Your task to perform on an android device: set default search engine in the chrome app Image 0: 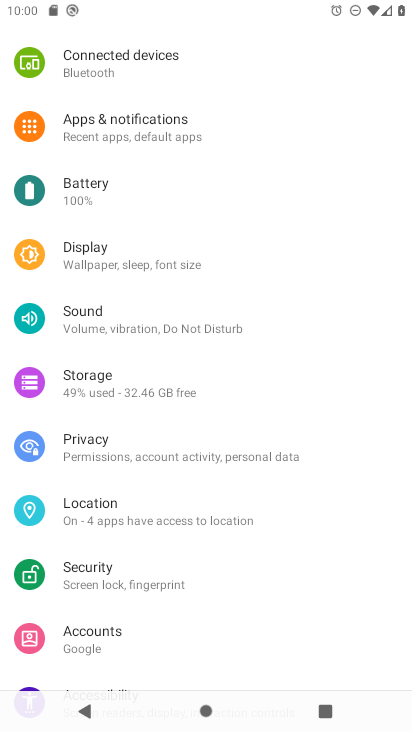
Step 0: press home button
Your task to perform on an android device: set default search engine in the chrome app Image 1: 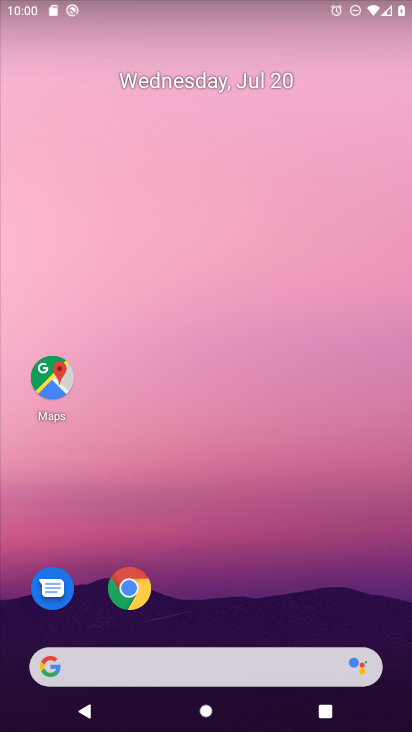
Step 1: click (142, 580)
Your task to perform on an android device: set default search engine in the chrome app Image 2: 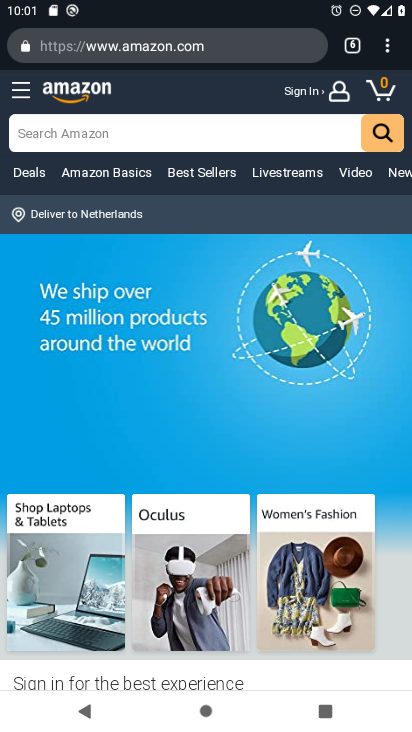
Step 2: click (403, 39)
Your task to perform on an android device: set default search engine in the chrome app Image 3: 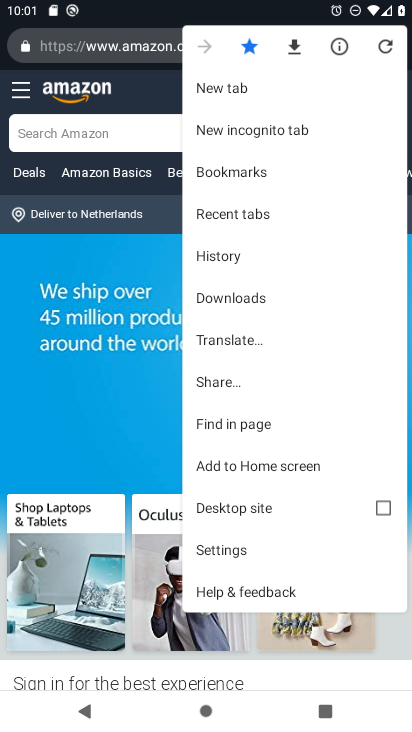
Step 3: click (276, 544)
Your task to perform on an android device: set default search engine in the chrome app Image 4: 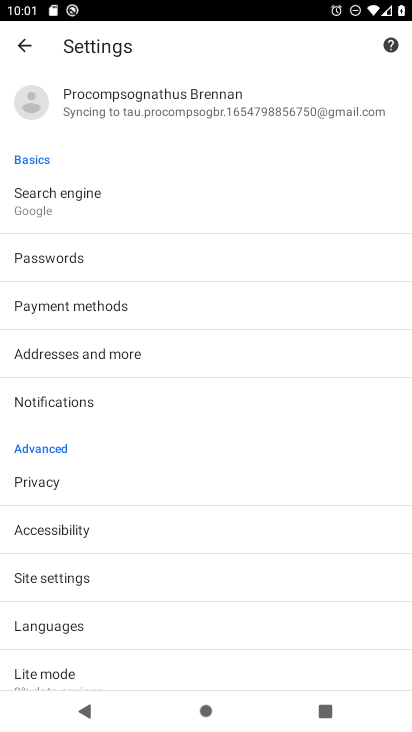
Step 4: click (97, 215)
Your task to perform on an android device: set default search engine in the chrome app Image 5: 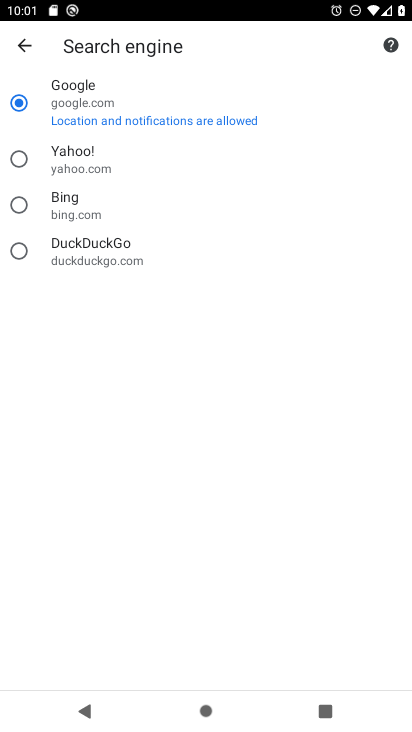
Step 5: click (110, 234)
Your task to perform on an android device: set default search engine in the chrome app Image 6: 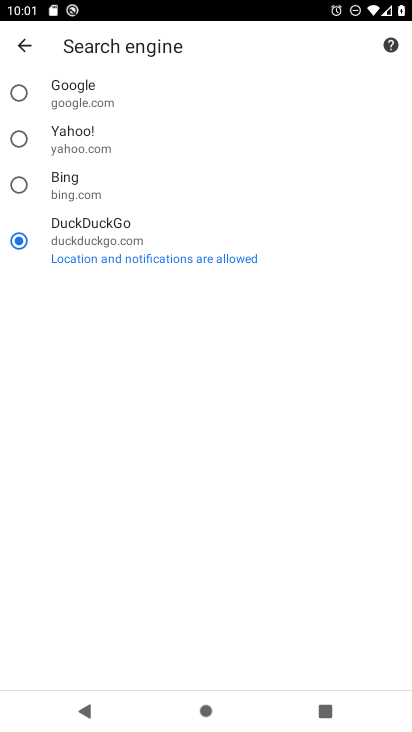
Step 6: task complete